Your task to perform on an android device: Open Maps and search for coffee Image 0: 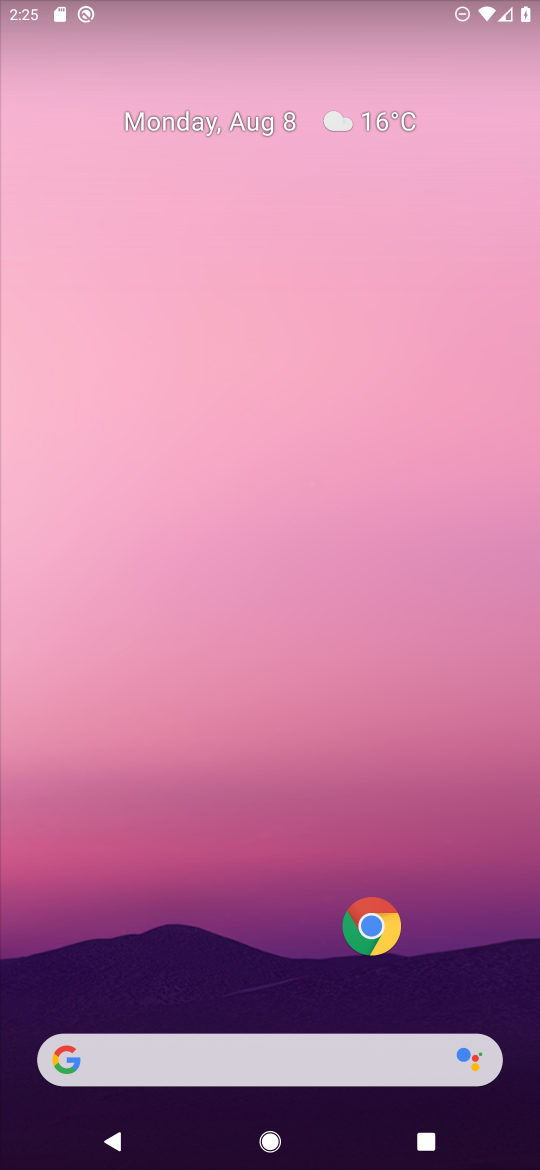
Step 0: drag from (221, 937) to (325, 298)
Your task to perform on an android device: Open Maps and search for coffee Image 1: 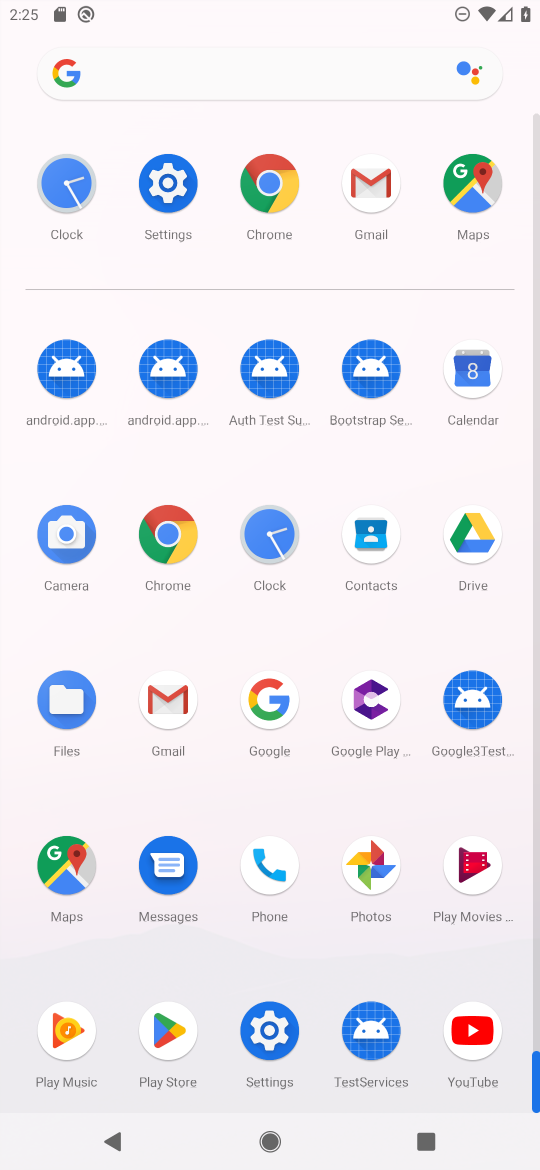
Step 1: click (458, 169)
Your task to perform on an android device: Open Maps and search for coffee Image 2: 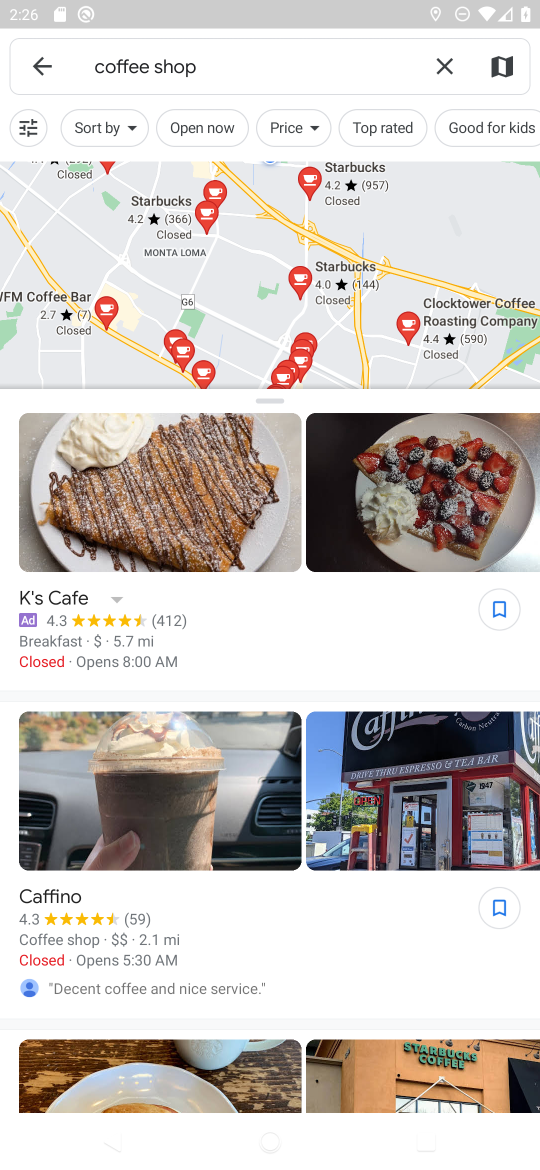
Step 2: task complete